Your task to perform on an android device: open app "HBO Max: Stream TV & Movies" (install if not already installed) and go to login screen Image 0: 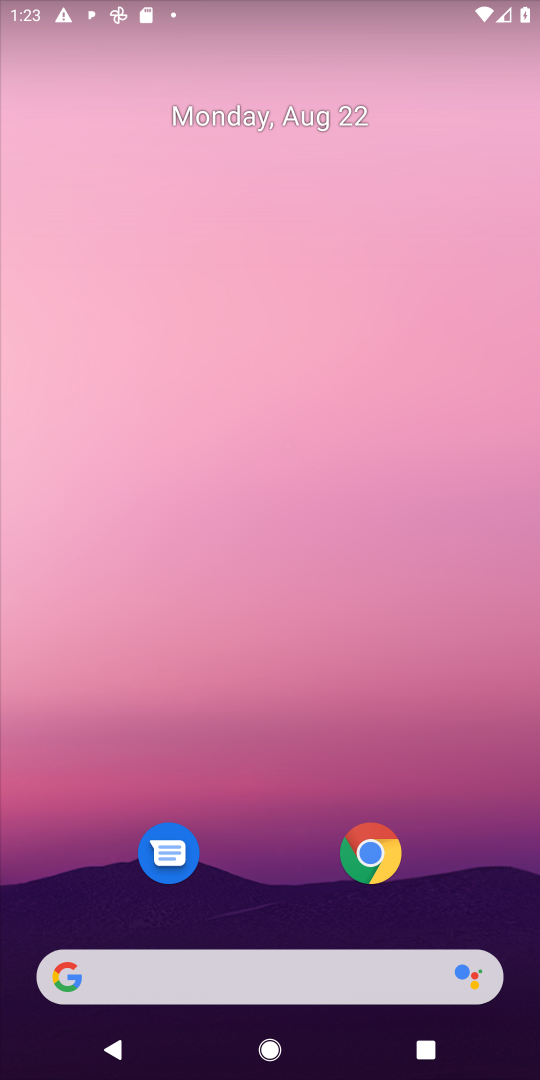
Step 0: drag from (244, 903) to (297, 85)
Your task to perform on an android device: open app "HBO Max: Stream TV & Movies" (install if not already installed) and go to login screen Image 1: 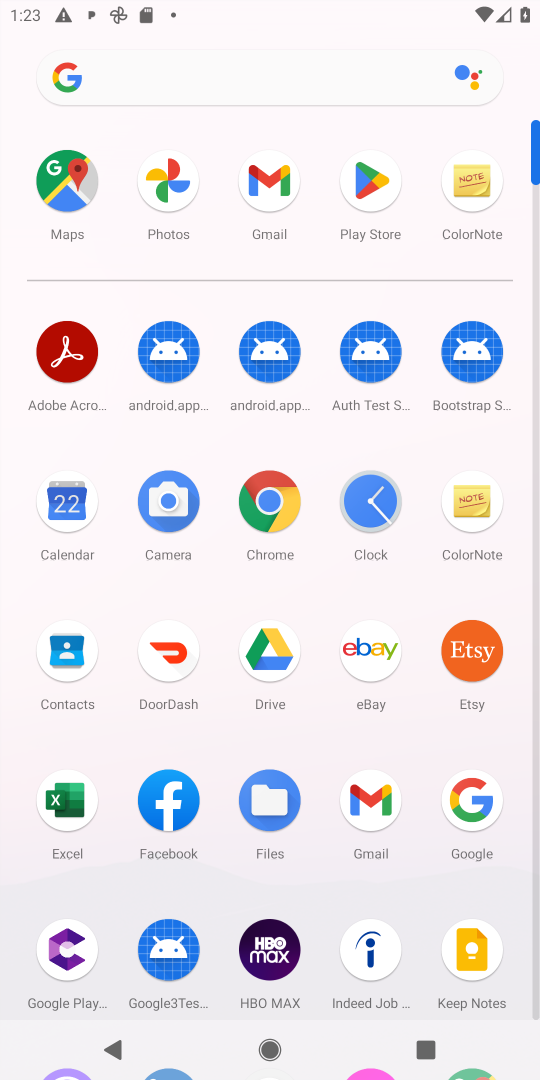
Step 1: click (372, 176)
Your task to perform on an android device: open app "HBO Max: Stream TV & Movies" (install if not already installed) and go to login screen Image 2: 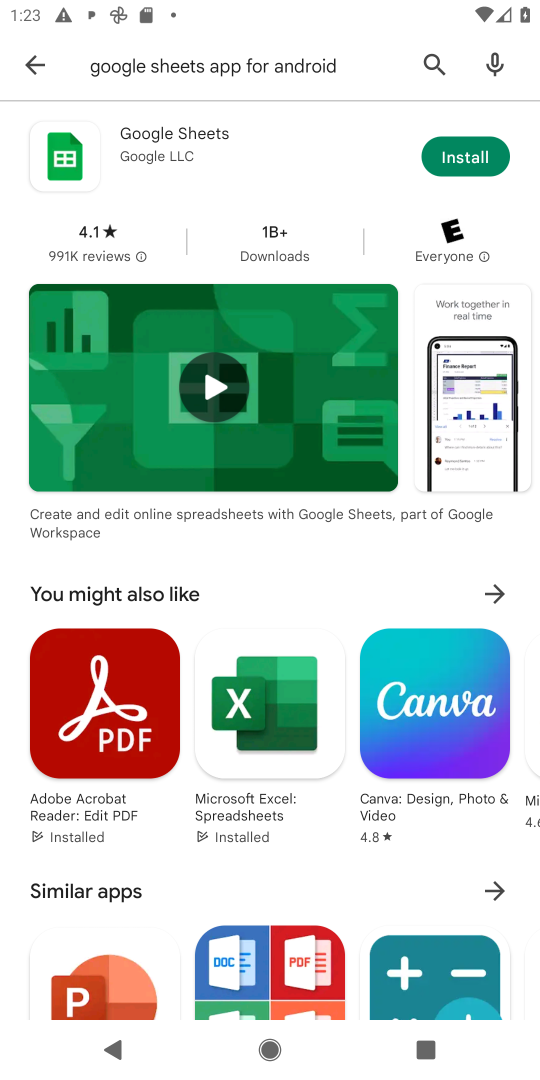
Step 2: click (35, 50)
Your task to perform on an android device: open app "HBO Max: Stream TV & Movies" (install if not already installed) and go to login screen Image 3: 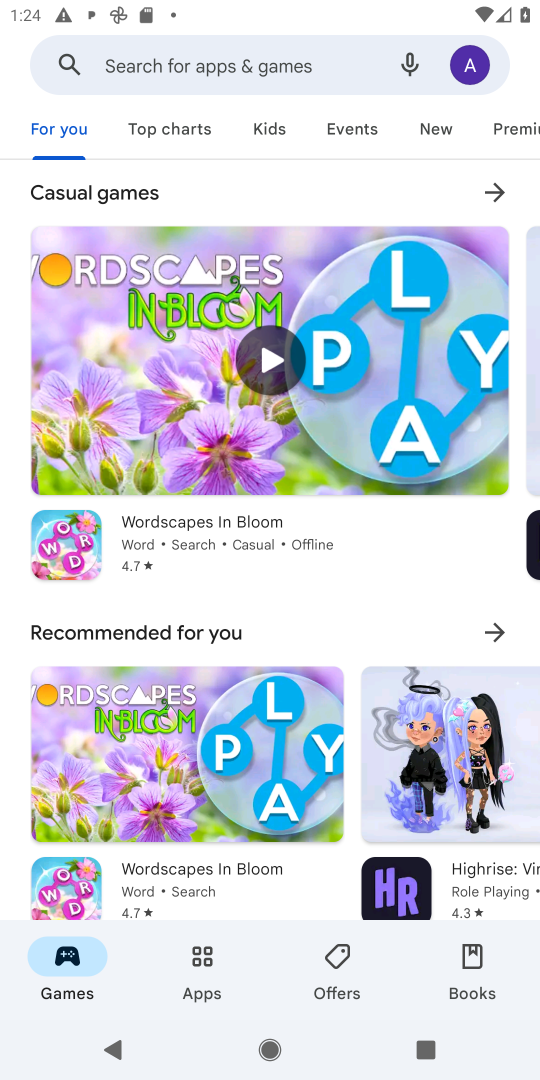
Step 3: click (196, 60)
Your task to perform on an android device: open app "HBO Max: Stream TV & Movies" (install if not already installed) and go to login screen Image 4: 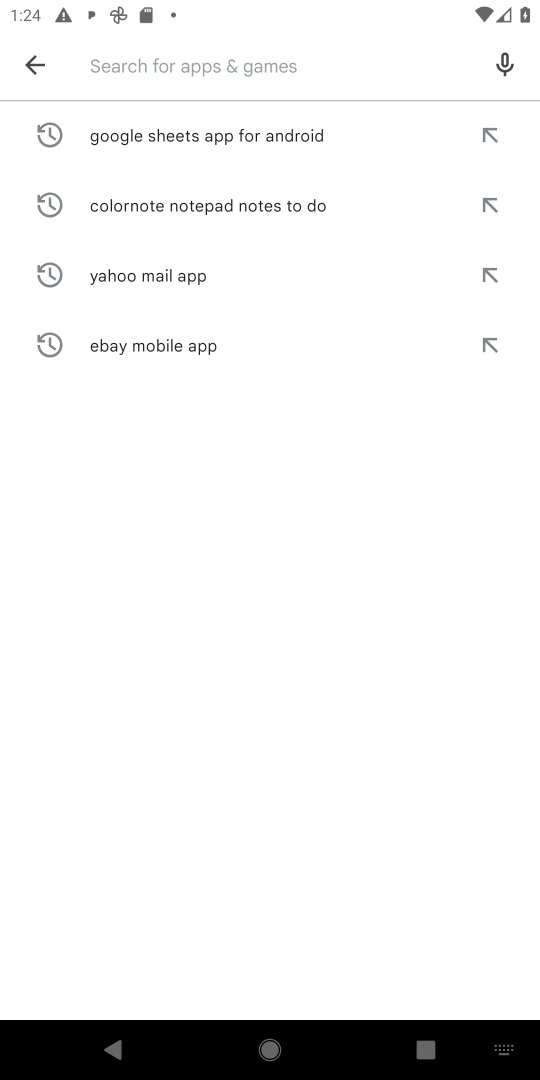
Step 4: type "HBO Max: Stream TV & Movies "
Your task to perform on an android device: open app "HBO Max: Stream TV & Movies" (install if not already installed) and go to login screen Image 5: 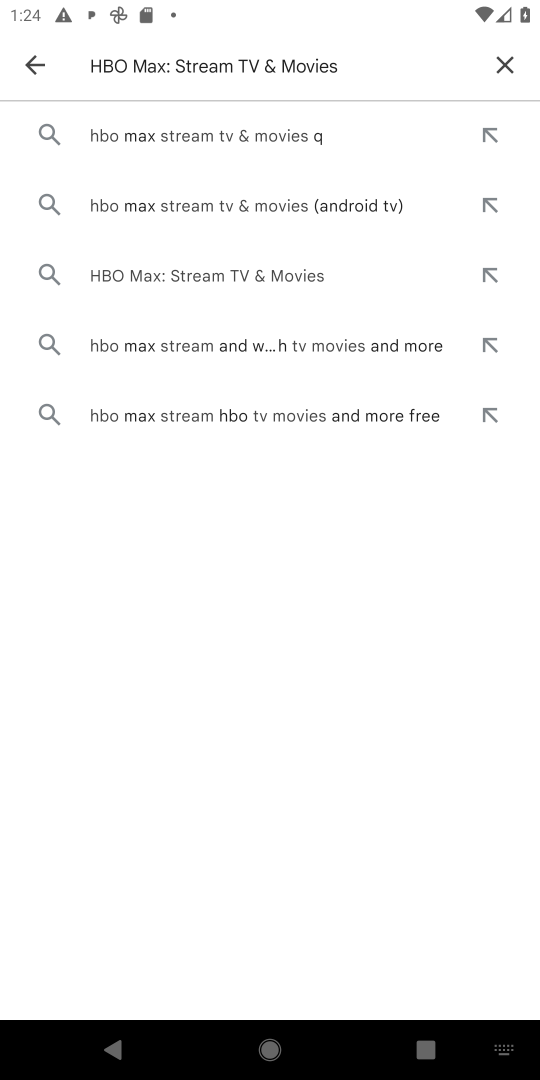
Step 5: click (179, 124)
Your task to perform on an android device: open app "HBO Max: Stream TV & Movies" (install if not already installed) and go to login screen Image 6: 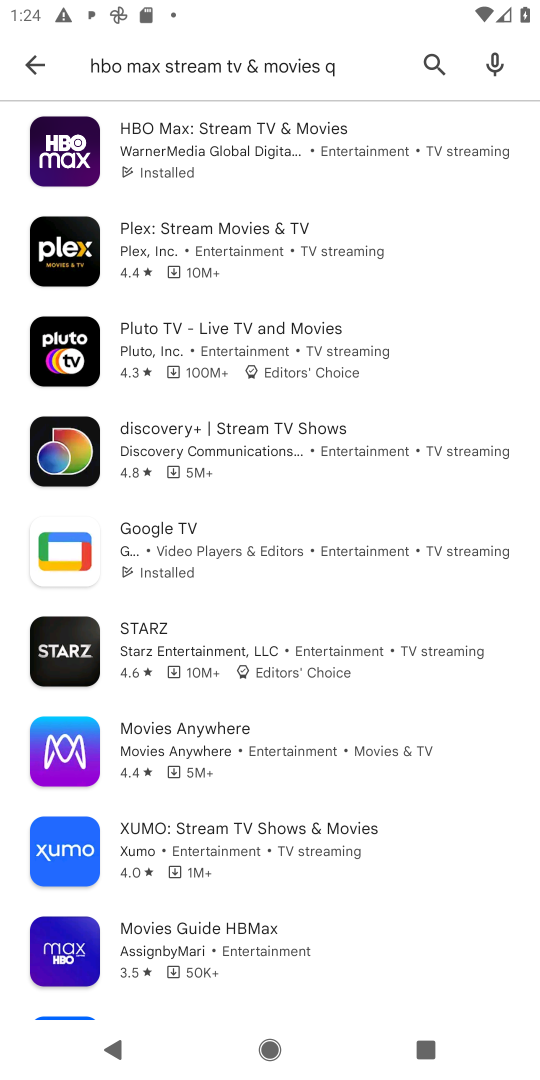
Step 6: click (346, 138)
Your task to perform on an android device: open app "HBO Max: Stream TV & Movies" (install if not already installed) and go to login screen Image 7: 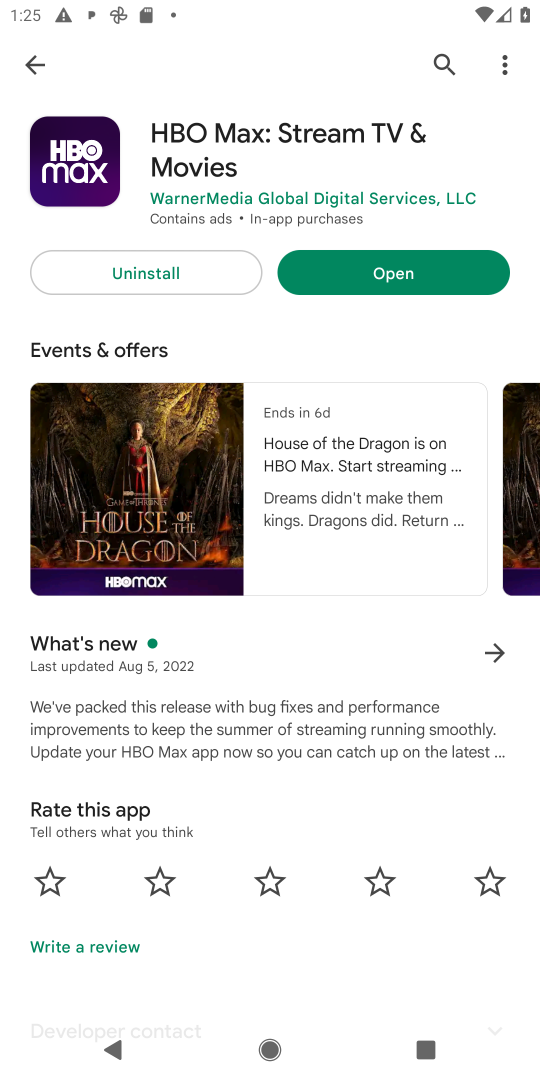
Step 7: click (346, 267)
Your task to perform on an android device: open app "HBO Max: Stream TV & Movies" (install if not already installed) and go to login screen Image 8: 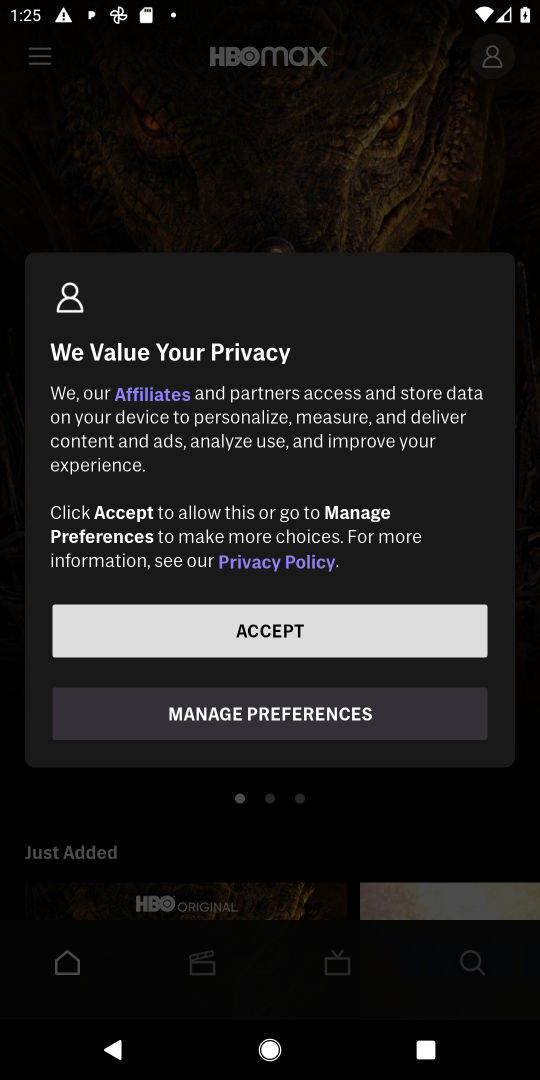
Step 8: click (327, 620)
Your task to perform on an android device: open app "HBO Max: Stream TV & Movies" (install if not already installed) and go to login screen Image 9: 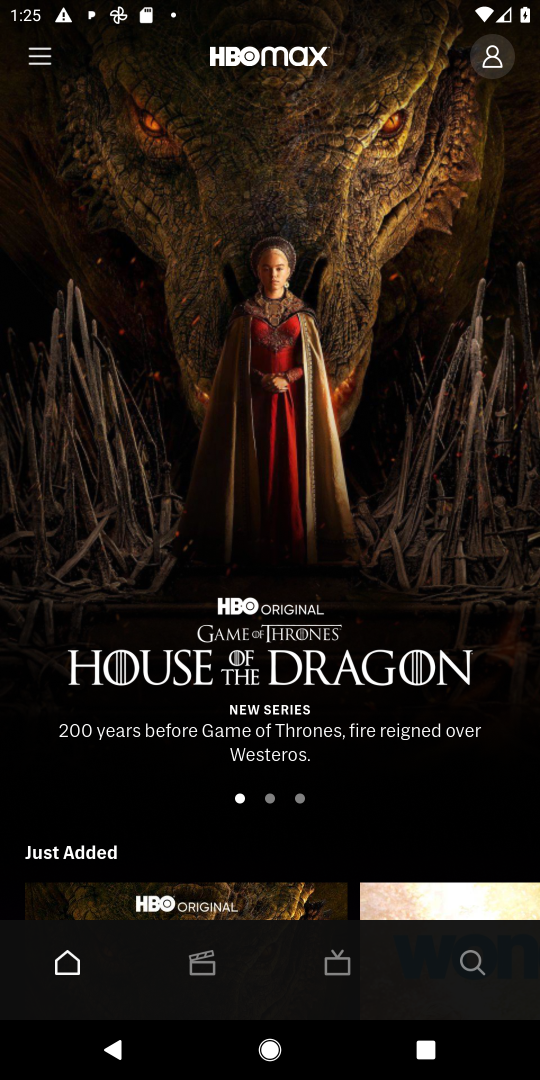
Step 9: task complete